Your task to perform on an android device: Open settings on Google Maps Image 0: 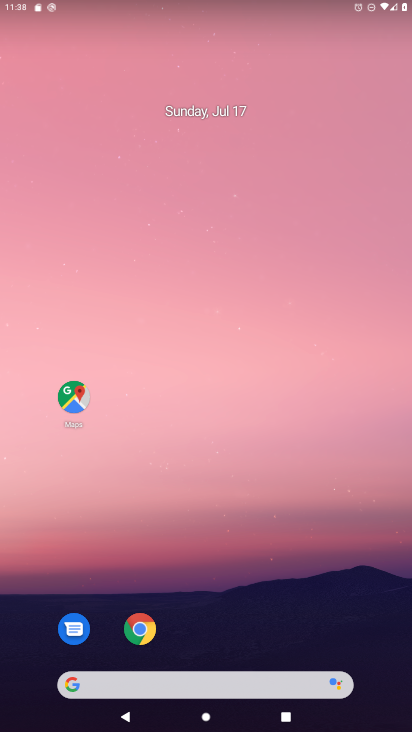
Step 0: click (70, 395)
Your task to perform on an android device: Open settings on Google Maps Image 1: 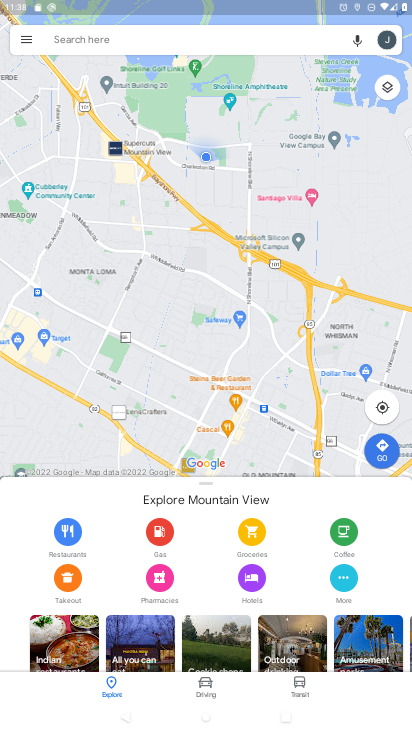
Step 1: click (27, 36)
Your task to perform on an android device: Open settings on Google Maps Image 2: 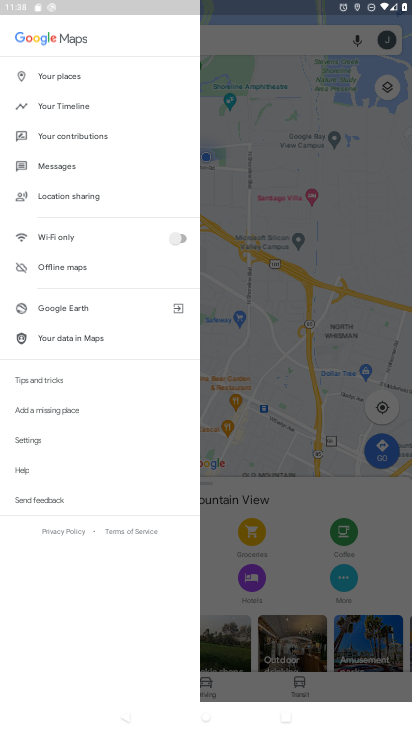
Step 2: click (45, 440)
Your task to perform on an android device: Open settings on Google Maps Image 3: 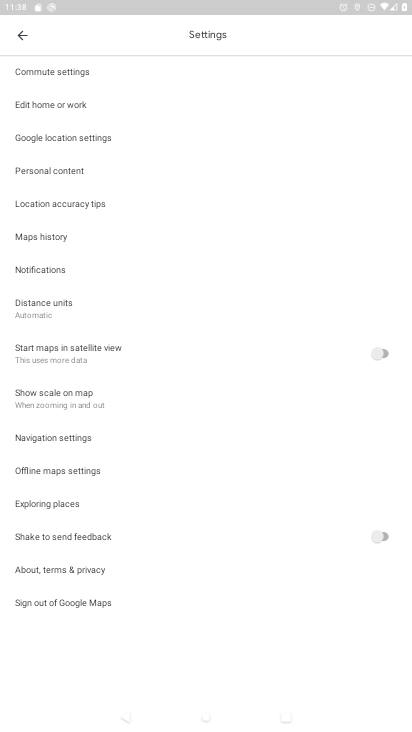
Step 3: task complete